Your task to perform on an android device: Open accessibility settings Image 0: 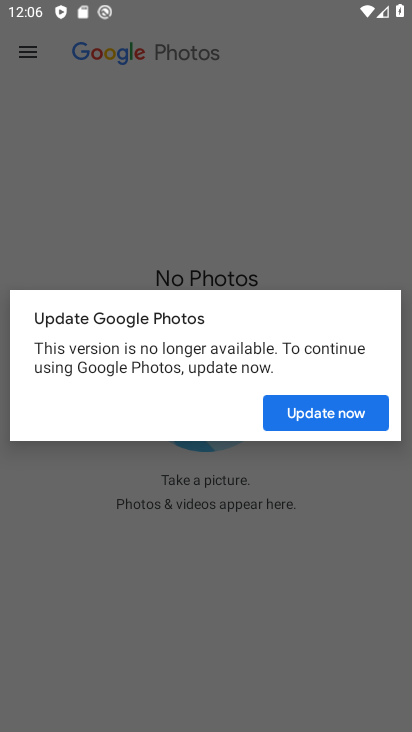
Step 0: press home button
Your task to perform on an android device: Open accessibility settings Image 1: 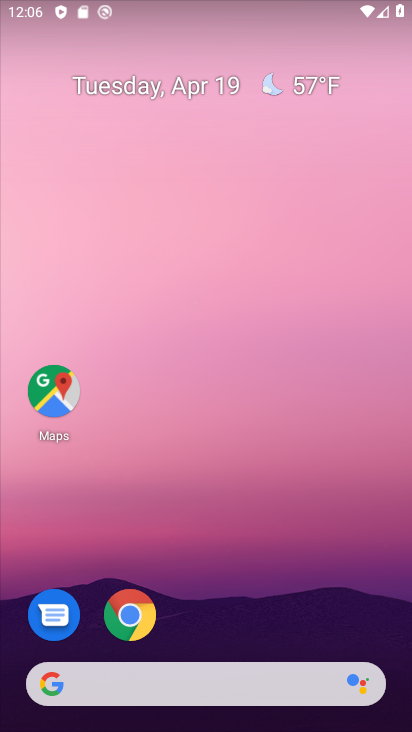
Step 1: drag from (221, 627) to (193, 132)
Your task to perform on an android device: Open accessibility settings Image 2: 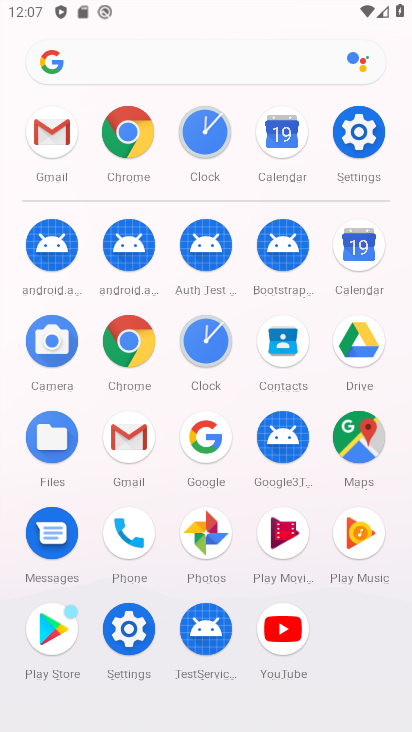
Step 2: click (342, 130)
Your task to perform on an android device: Open accessibility settings Image 3: 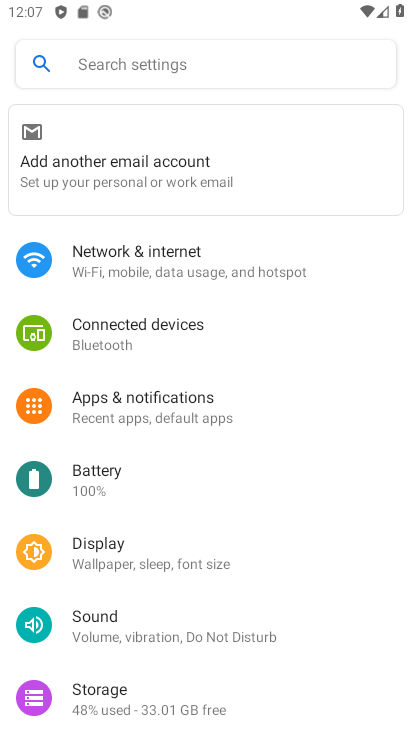
Step 3: drag from (227, 595) to (214, 224)
Your task to perform on an android device: Open accessibility settings Image 4: 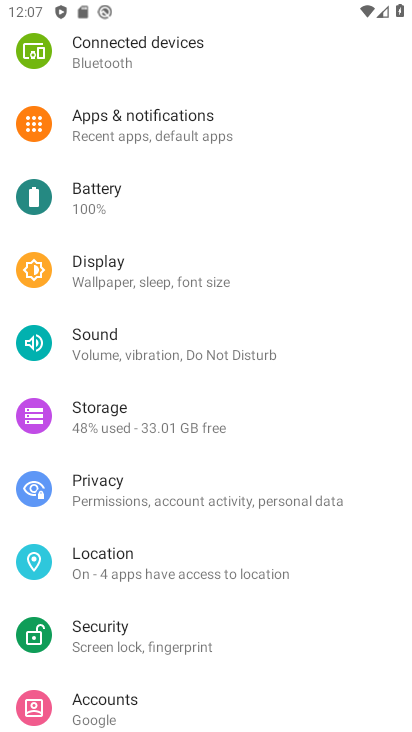
Step 4: drag from (204, 562) to (220, 194)
Your task to perform on an android device: Open accessibility settings Image 5: 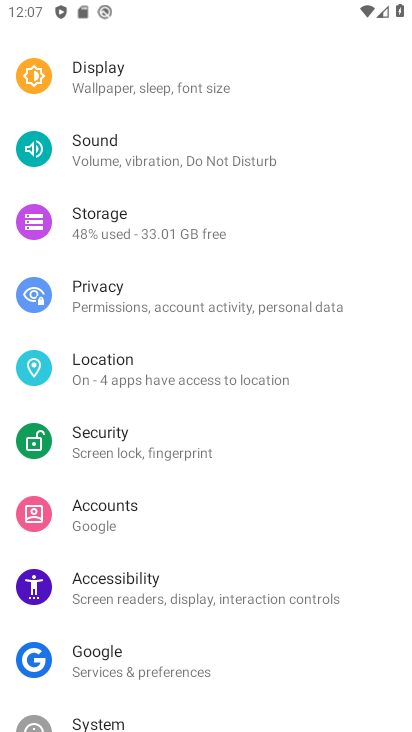
Step 5: drag from (211, 446) to (221, 237)
Your task to perform on an android device: Open accessibility settings Image 6: 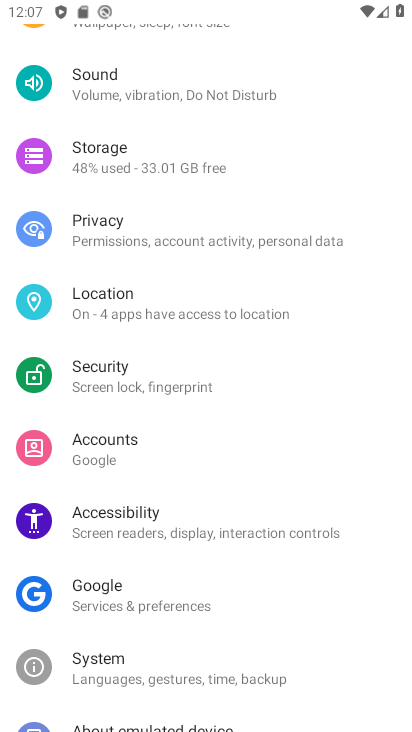
Step 6: drag from (225, 464) to (221, 246)
Your task to perform on an android device: Open accessibility settings Image 7: 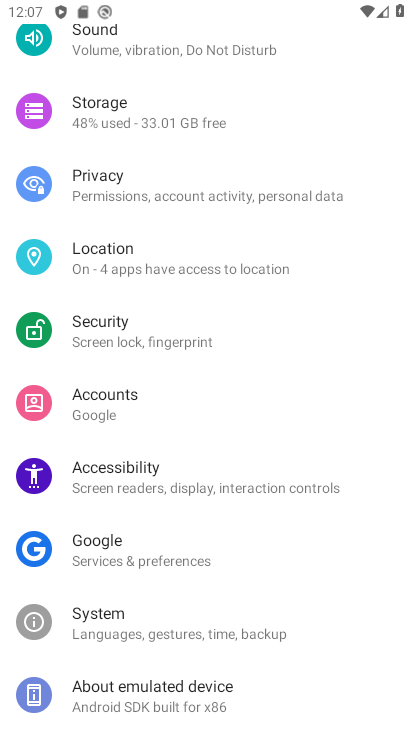
Step 7: drag from (224, 425) to (215, 201)
Your task to perform on an android device: Open accessibility settings Image 8: 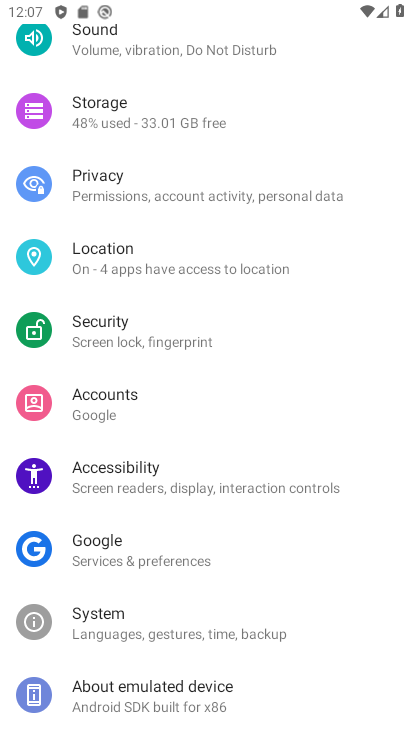
Step 8: drag from (212, 617) to (201, 314)
Your task to perform on an android device: Open accessibility settings Image 9: 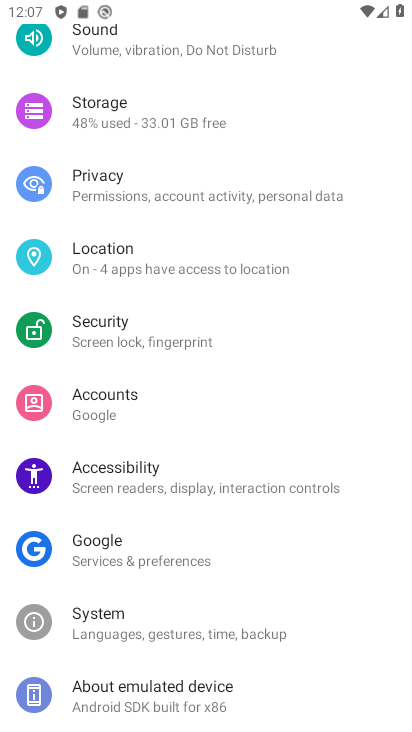
Step 9: click (142, 489)
Your task to perform on an android device: Open accessibility settings Image 10: 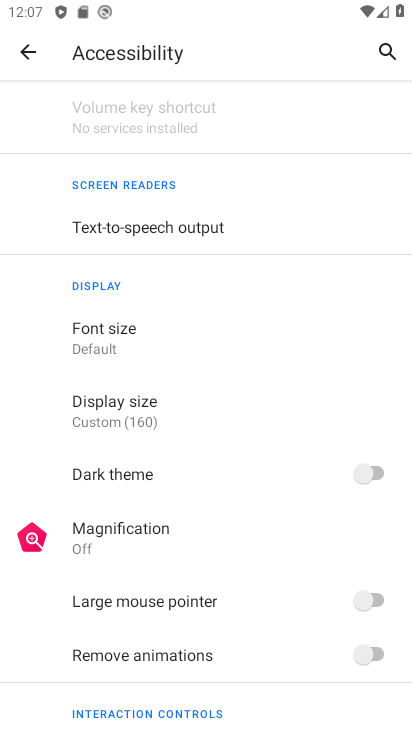
Step 10: task complete